Your task to perform on an android device: Open display settings Image 0: 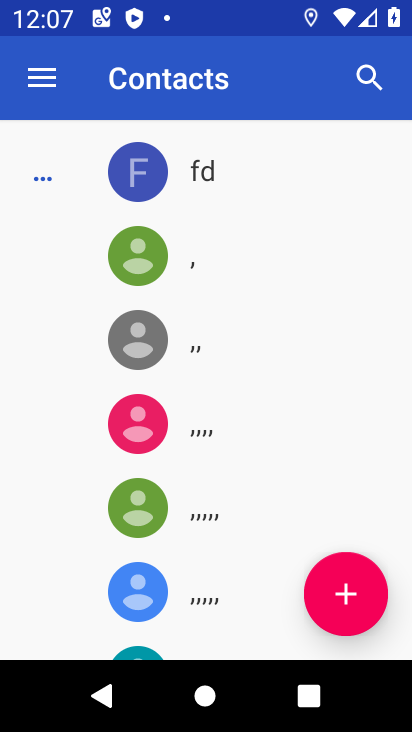
Step 0: press home button
Your task to perform on an android device: Open display settings Image 1: 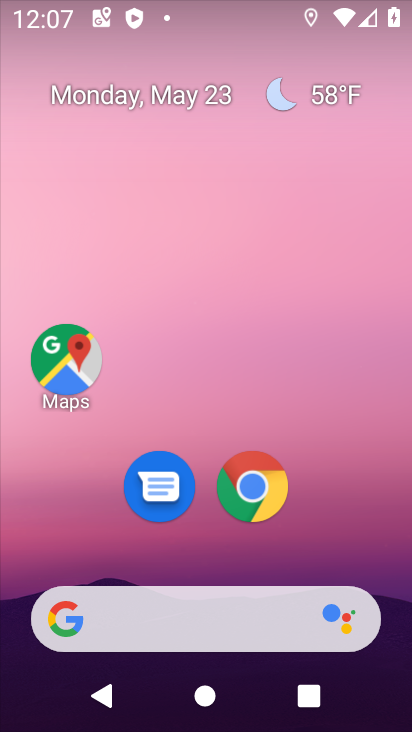
Step 1: drag from (395, 592) to (338, 2)
Your task to perform on an android device: Open display settings Image 2: 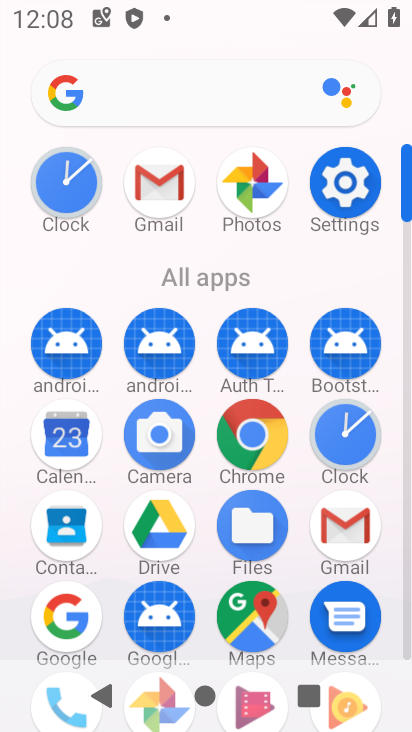
Step 2: click (406, 651)
Your task to perform on an android device: Open display settings Image 3: 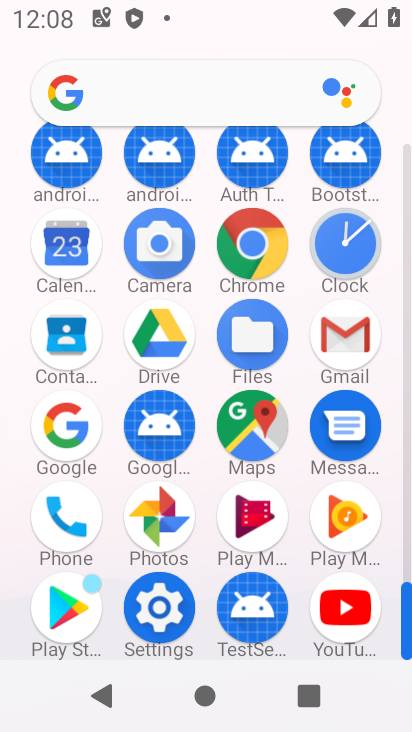
Step 3: click (157, 608)
Your task to perform on an android device: Open display settings Image 4: 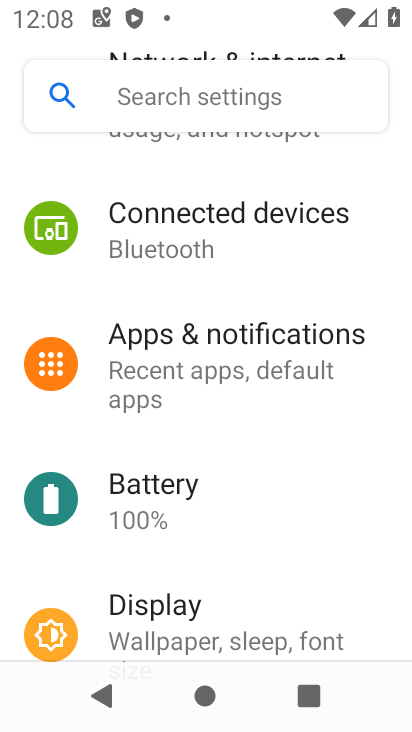
Step 4: click (144, 619)
Your task to perform on an android device: Open display settings Image 5: 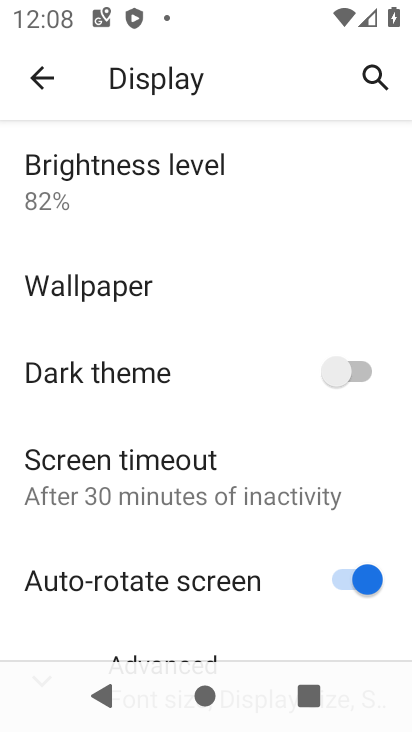
Step 5: drag from (333, 538) to (311, 254)
Your task to perform on an android device: Open display settings Image 6: 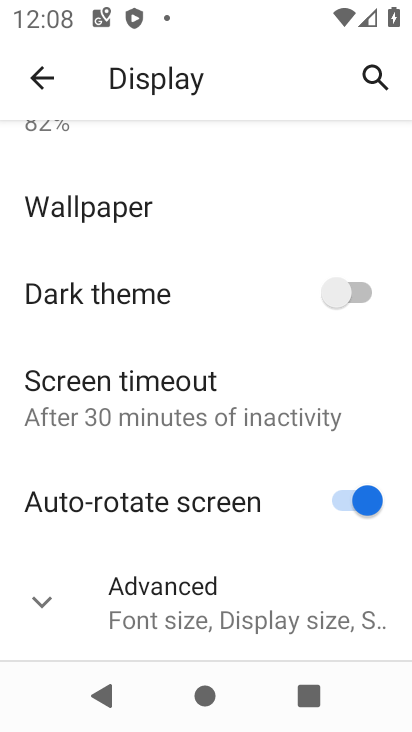
Step 6: click (41, 603)
Your task to perform on an android device: Open display settings Image 7: 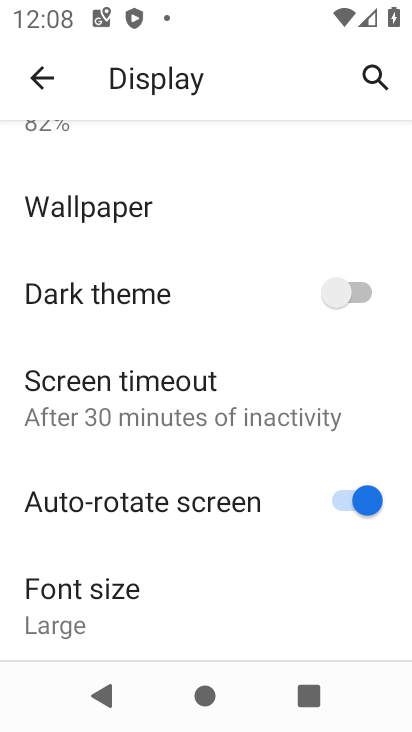
Step 7: task complete